Your task to perform on an android device: find photos in the google photos app Image 0: 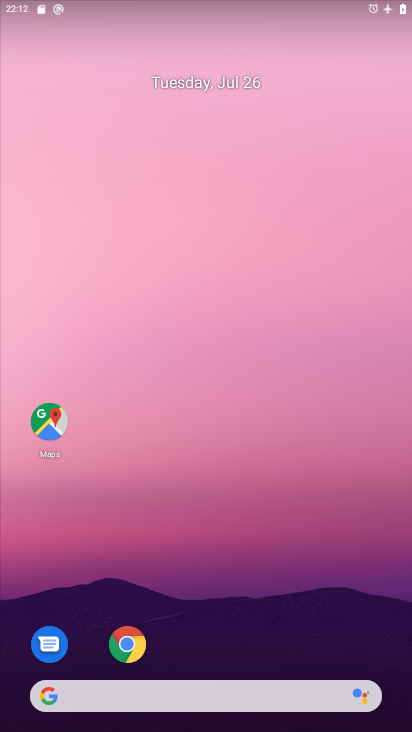
Step 0: drag from (260, 663) to (250, 140)
Your task to perform on an android device: find photos in the google photos app Image 1: 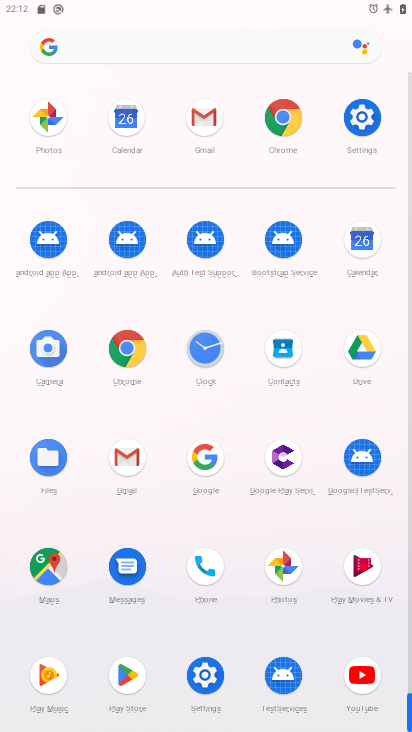
Step 1: click (274, 565)
Your task to perform on an android device: find photos in the google photos app Image 2: 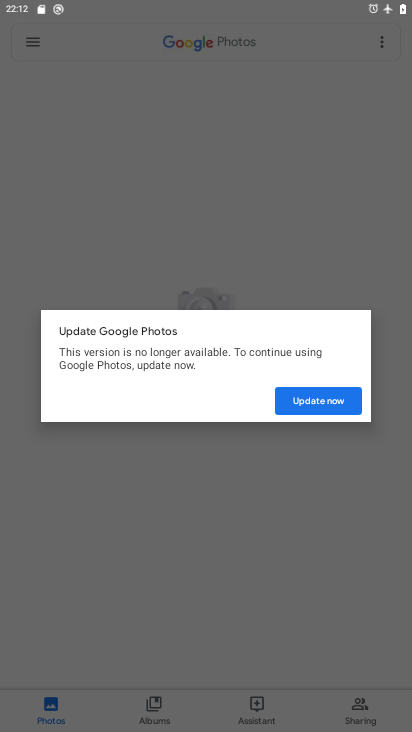
Step 2: click (324, 395)
Your task to perform on an android device: find photos in the google photos app Image 3: 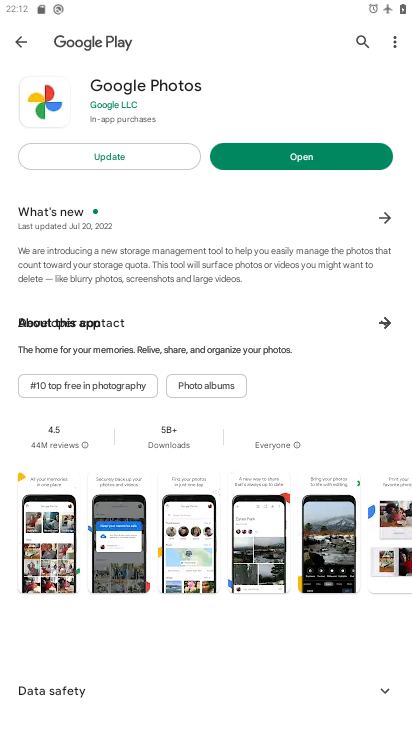
Step 3: task complete